Your task to perform on an android device: What's the weather? Image 0: 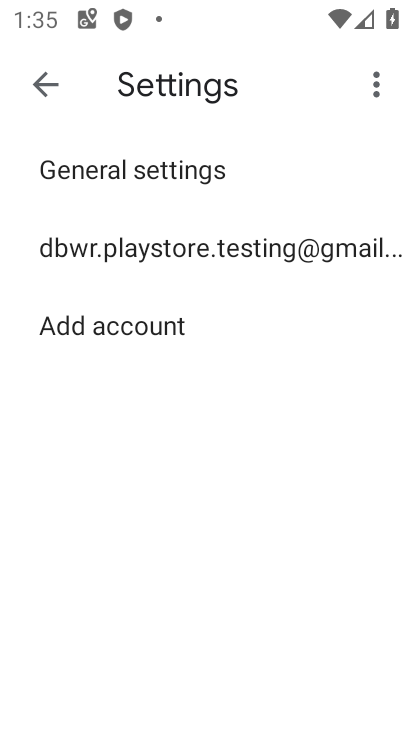
Step 0: press home button
Your task to perform on an android device: What's the weather? Image 1: 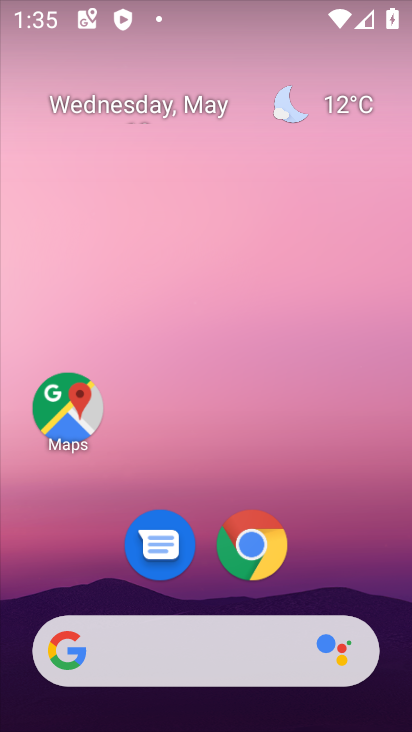
Step 1: click (339, 97)
Your task to perform on an android device: What's the weather? Image 2: 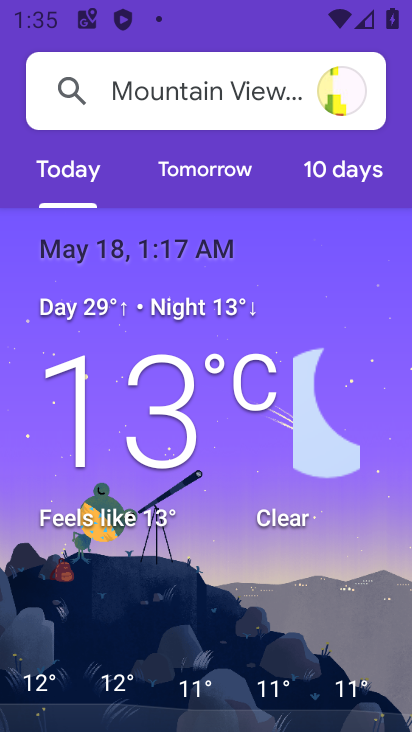
Step 2: task complete